Your task to perform on an android device: Search for sushi restaurants on Maps Image 0: 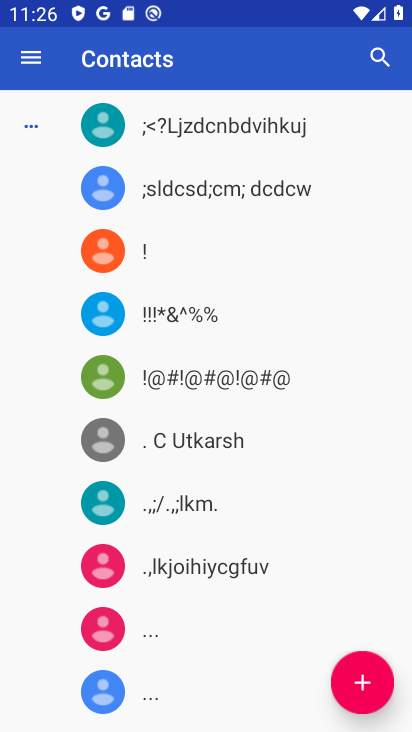
Step 0: press home button
Your task to perform on an android device: Search for sushi restaurants on Maps Image 1: 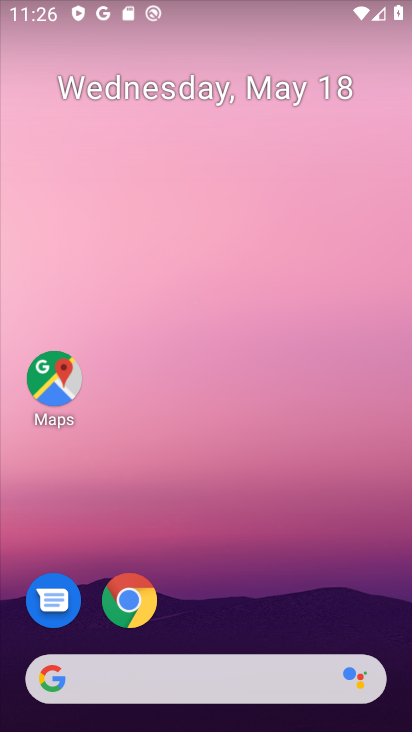
Step 1: click (66, 367)
Your task to perform on an android device: Search for sushi restaurants on Maps Image 2: 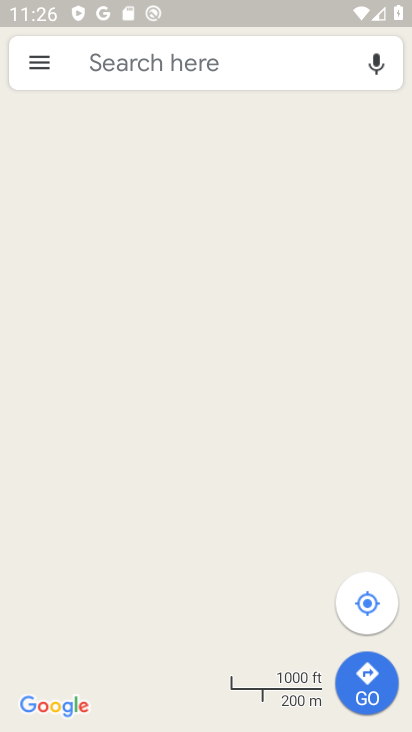
Step 2: click (248, 69)
Your task to perform on an android device: Search for sushi restaurants on Maps Image 3: 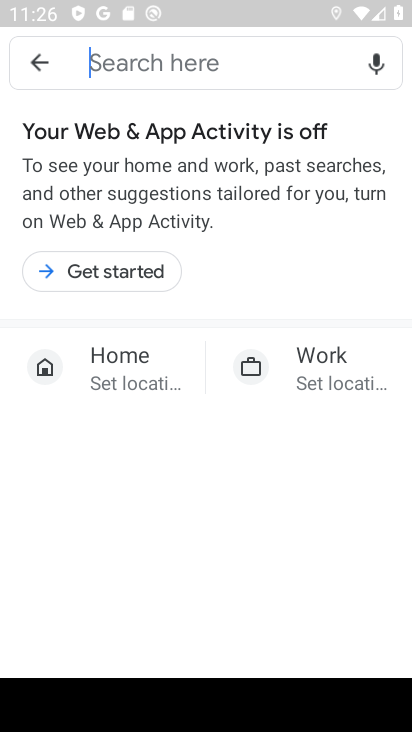
Step 3: type "sushi restaurants"
Your task to perform on an android device: Search for sushi restaurants on Maps Image 4: 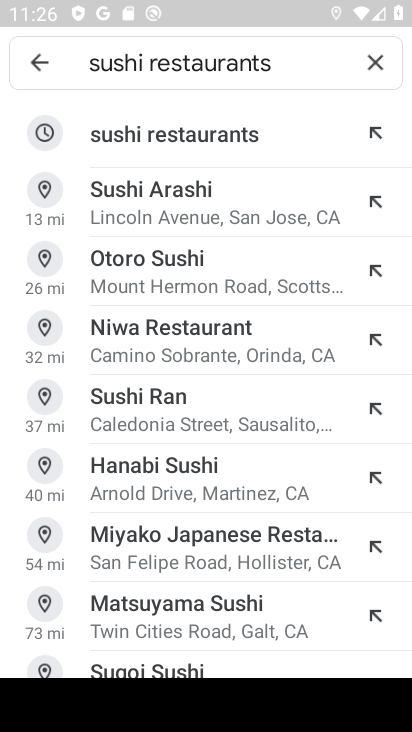
Step 4: click (236, 129)
Your task to perform on an android device: Search for sushi restaurants on Maps Image 5: 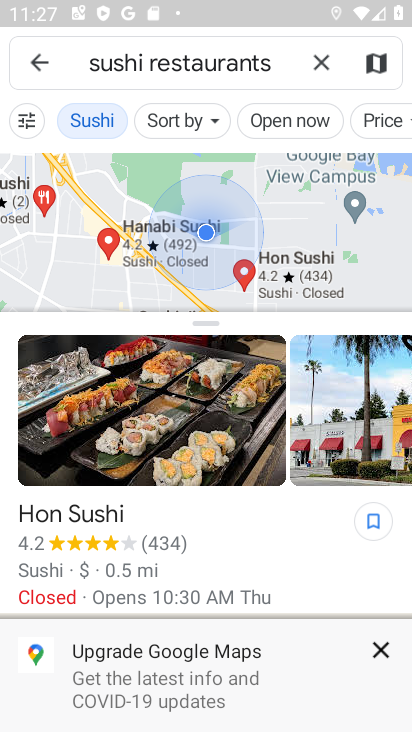
Step 5: task complete